Your task to perform on an android device: turn on bluetooth scan Image 0: 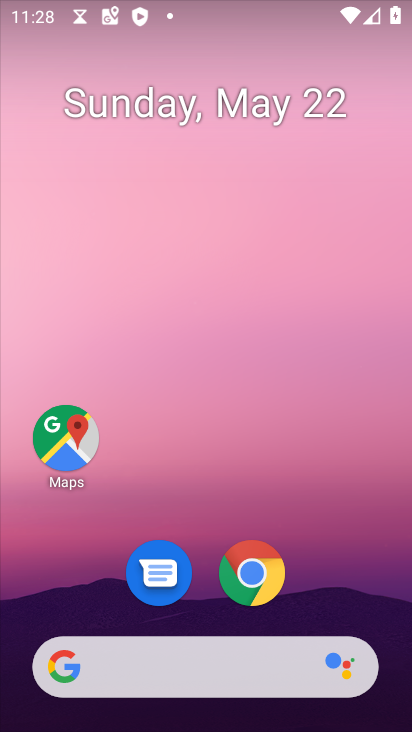
Step 0: press home button
Your task to perform on an android device: turn on bluetooth scan Image 1: 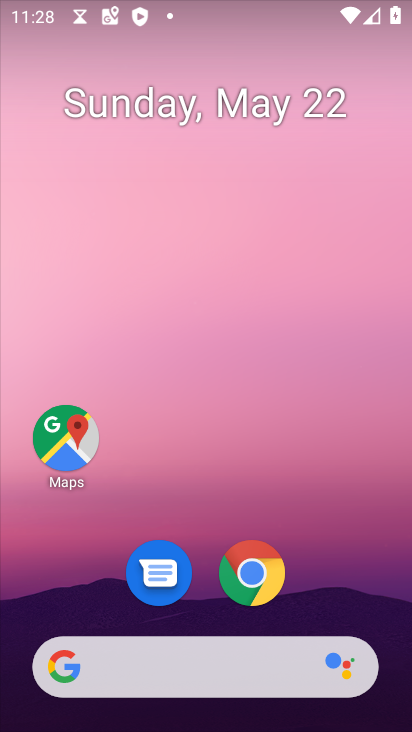
Step 1: drag from (144, 668) to (268, 154)
Your task to perform on an android device: turn on bluetooth scan Image 2: 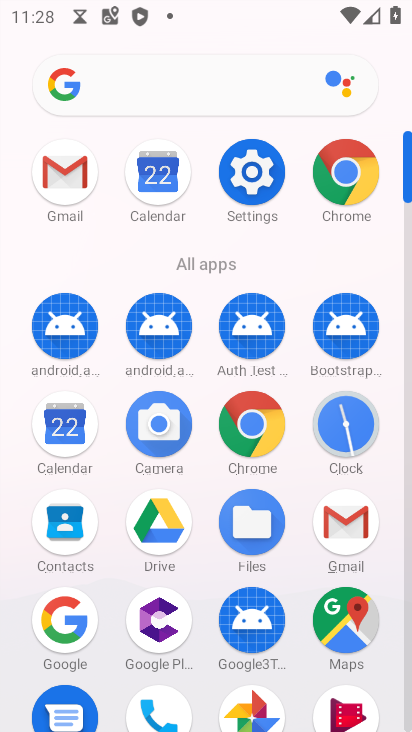
Step 2: click (264, 170)
Your task to perform on an android device: turn on bluetooth scan Image 3: 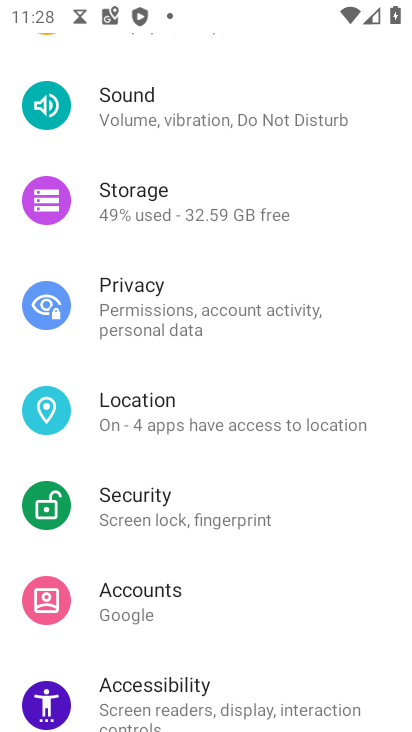
Step 3: drag from (351, 171) to (292, 675)
Your task to perform on an android device: turn on bluetooth scan Image 4: 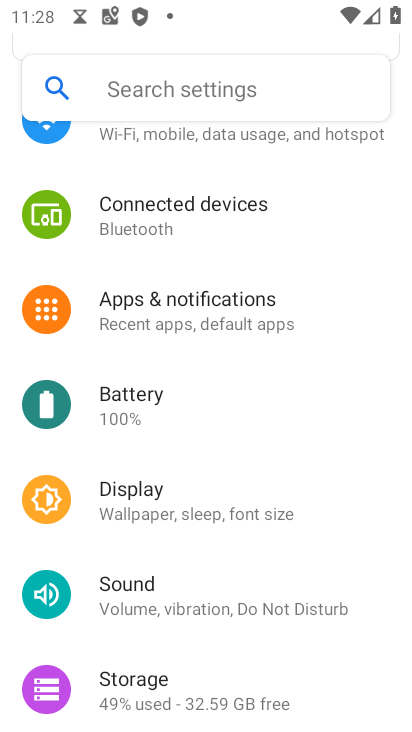
Step 4: drag from (320, 163) to (325, 598)
Your task to perform on an android device: turn on bluetooth scan Image 5: 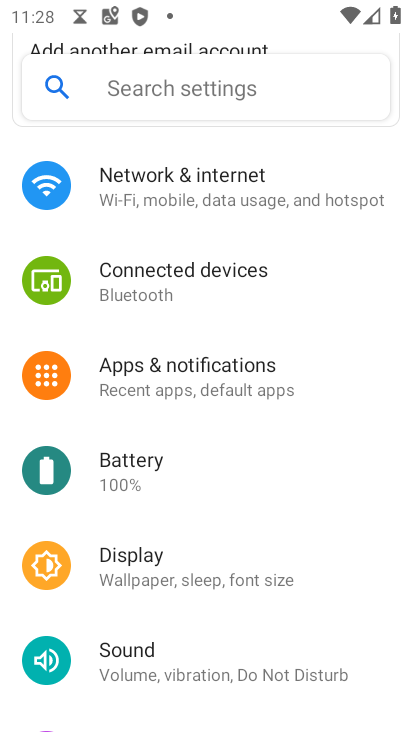
Step 5: drag from (288, 613) to (354, 127)
Your task to perform on an android device: turn on bluetooth scan Image 6: 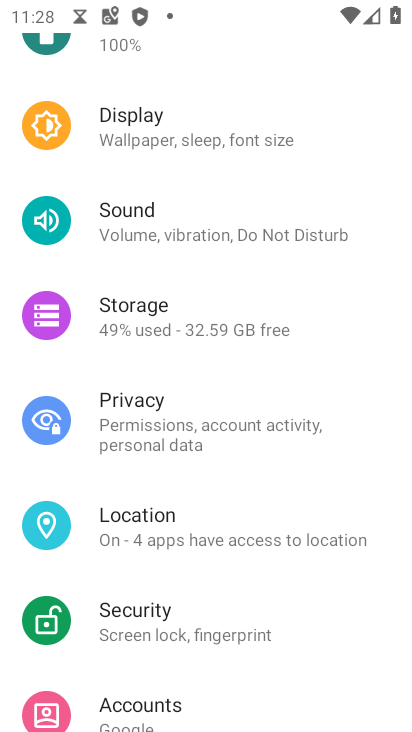
Step 6: drag from (230, 604) to (291, 186)
Your task to perform on an android device: turn on bluetooth scan Image 7: 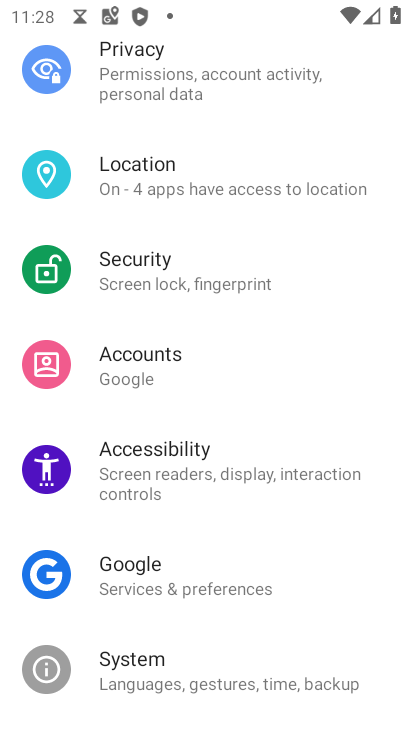
Step 7: click (165, 180)
Your task to perform on an android device: turn on bluetooth scan Image 8: 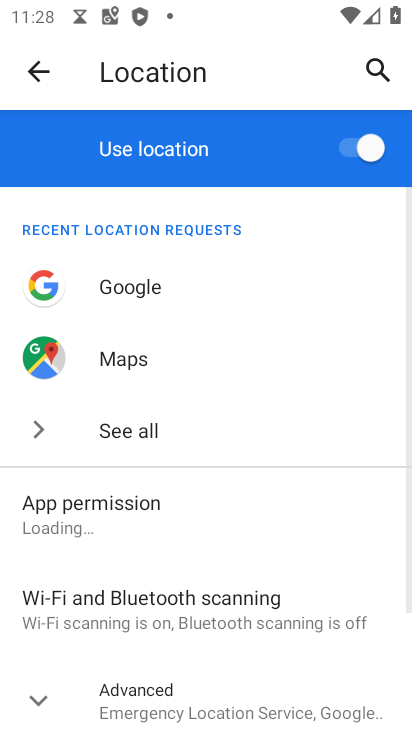
Step 8: click (221, 614)
Your task to perform on an android device: turn on bluetooth scan Image 9: 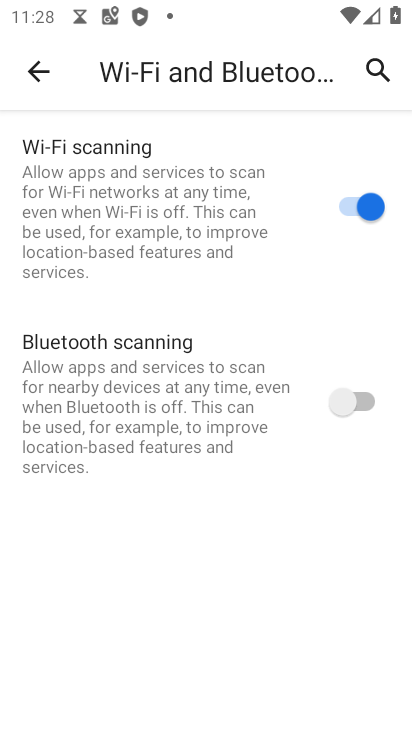
Step 9: click (374, 403)
Your task to perform on an android device: turn on bluetooth scan Image 10: 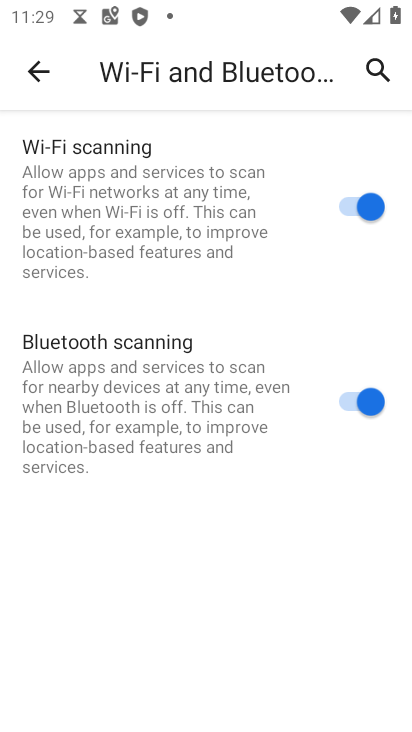
Step 10: task complete